Your task to perform on an android device: turn on improve location accuracy Image 0: 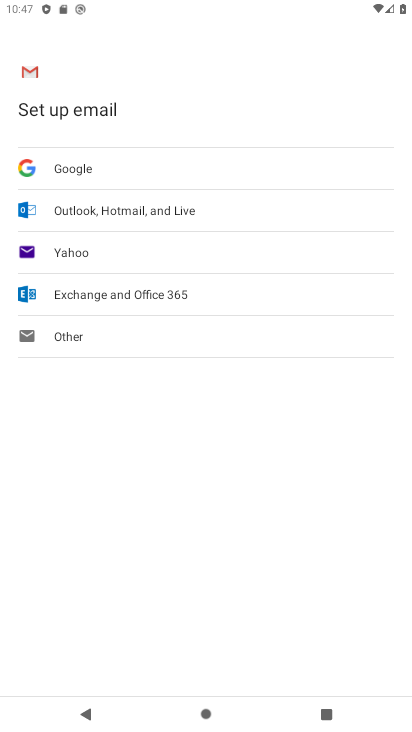
Step 0: press home button
Your task to perform on an android device: turn on improve location accuracy Image 1: 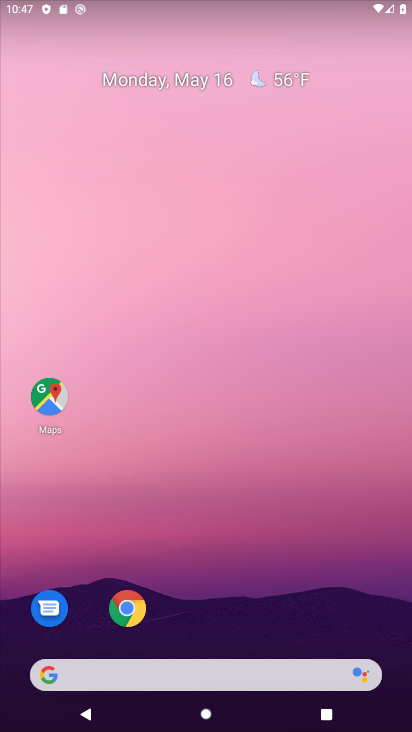
Step 1: drag from (408, 615) to (326, 223)
Your task to perform on an android device: turn on improve location accuracy Image 2: 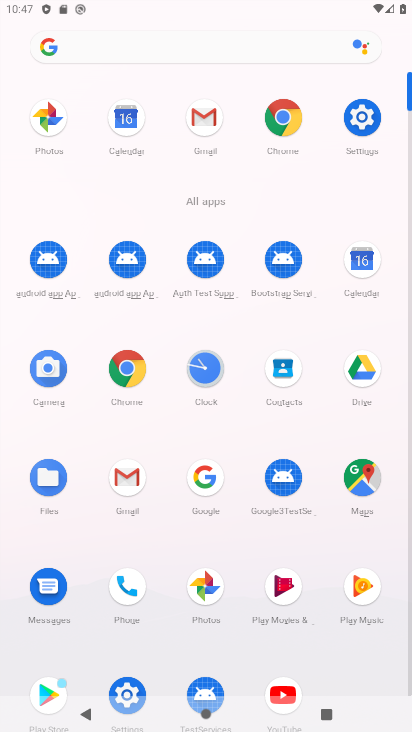
Step 2: click (126, 688)
Your task to perform on an android device: turn on improve location accuracy Image 3: 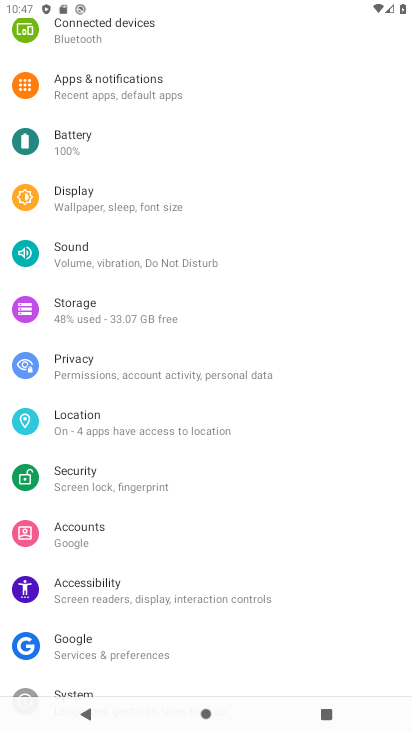
Step 3: click (175, 422)
Your task to perform on an android device: turn on improve location accuracy Image 4: 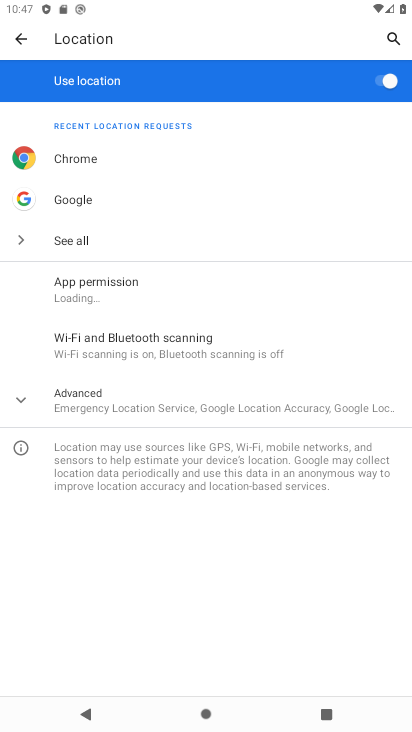
Step 4: click (198, 413)
Your task to perform on an android device: turn on improve location accuracy Image 5: 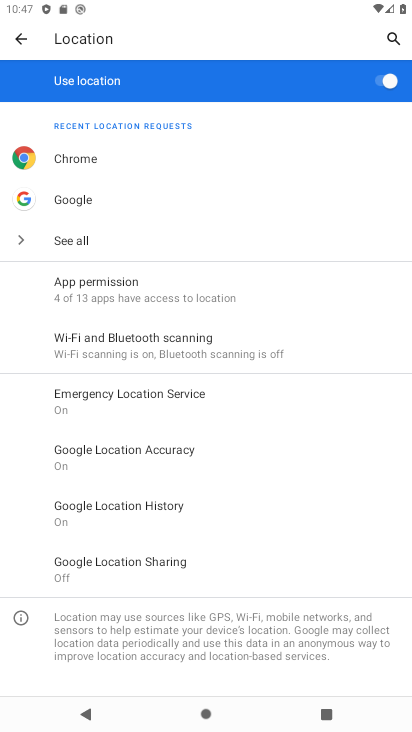
Step 5: click (180, 444)
Your task to perform on an android device: turn on improve location accuracy Image 6: 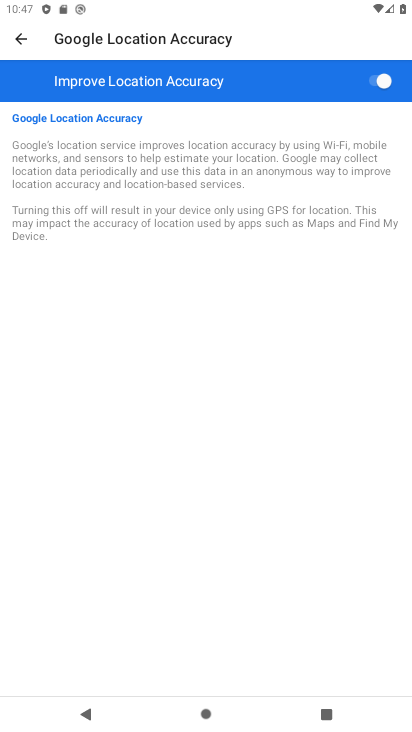
Step 6: task complete